Your task to perform on an android device: turn off notifications in google photos Image 0: 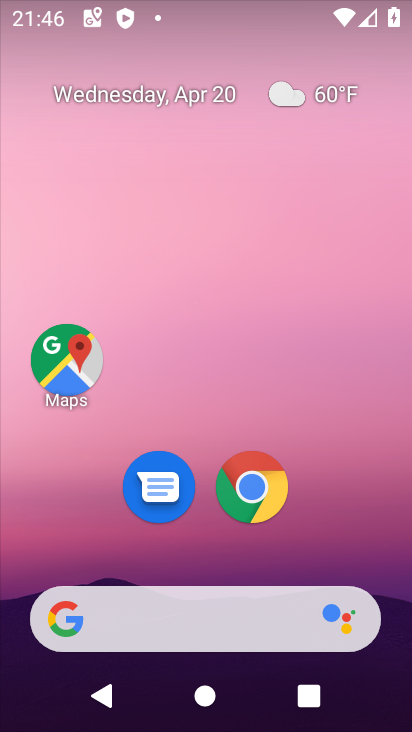
Step 0: drag from (21, 607) to (147, 271)
Your task to perform on an android device: turn off notifications in google photos Image 1: 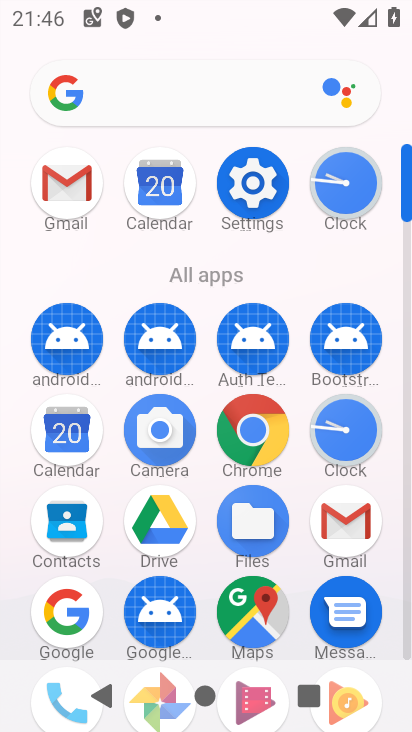
Step 1: drag from (44, 445) to (98, 293)
Your task to perform on an android device: turn off notifications in google photos Image 2: 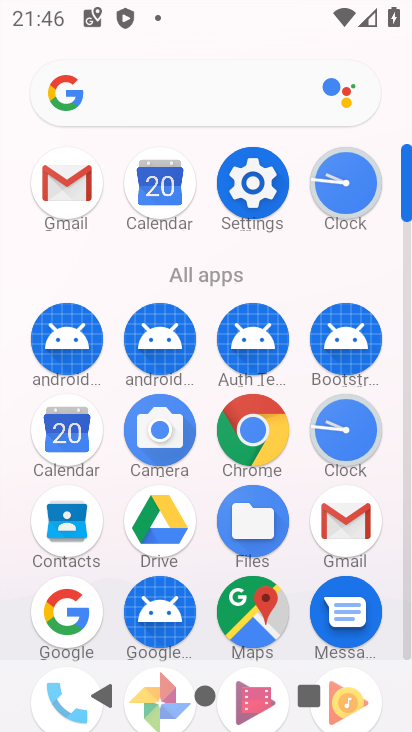
Step 2: drag from (33, 630) to (117, 270)
Your task to perform on an android device: turn off notifications in google photos Image 3: 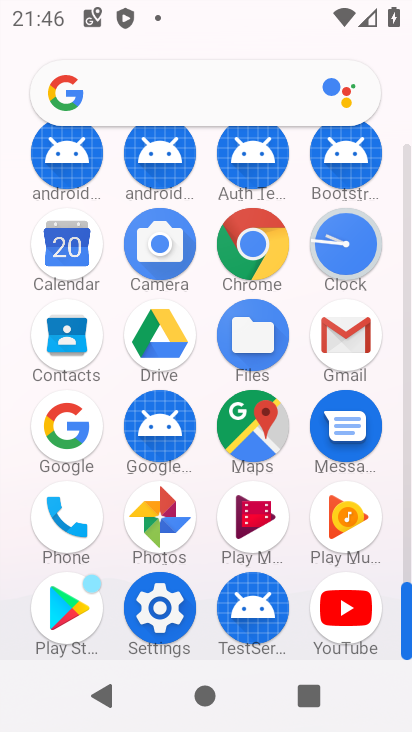
Step 3: click (166, 492)
Your task to perform on an android device: turn off notifications in google photos Image 4: 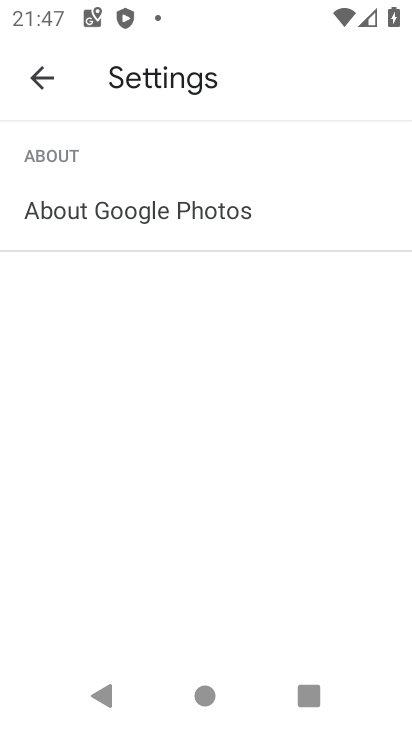
Step 4: press back button
Your task to perform on an android device: turn off notifications in google photos Image 5: 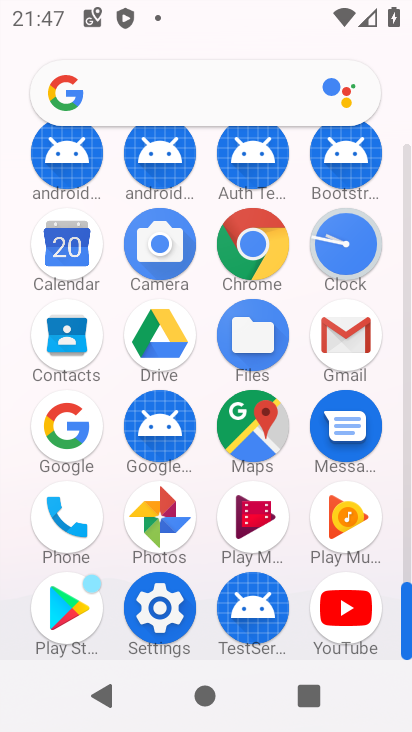
Step 5: click (151, 519)
Your task to perform on an android device: turn off notifications in google photos Image 6: 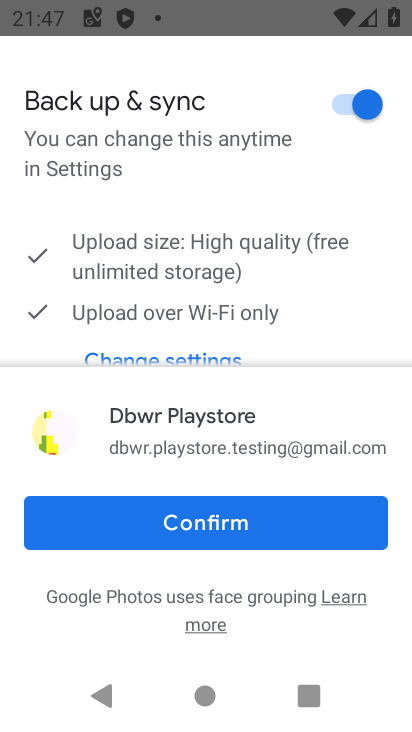
Step 6: click (120, 522)
Your task to perform on an android device: turn off notifications in google photos Image 7: 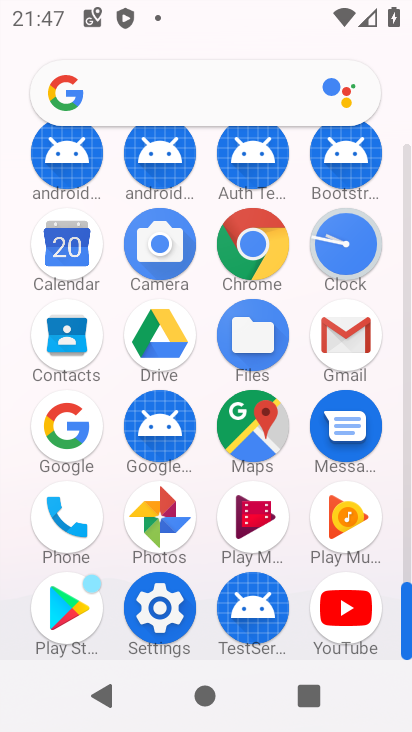
Step 7: click (144, 520)
Your task to perform on an android device: turn off notifications in google photos Image 8: 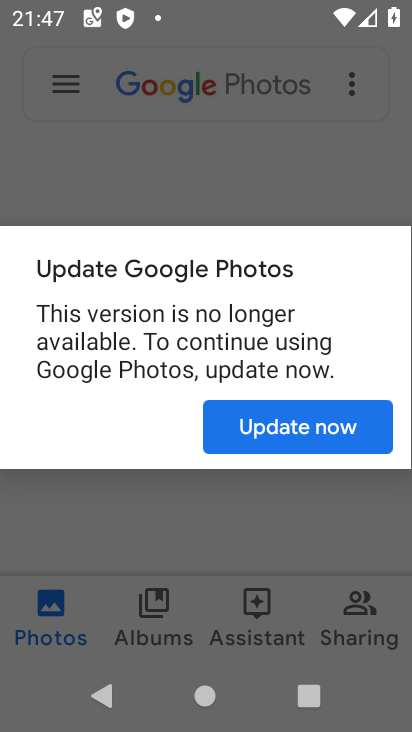
Step 8: click (201, 153)
Your task to perform on an android device: turn off notifications in google photos Image 9: 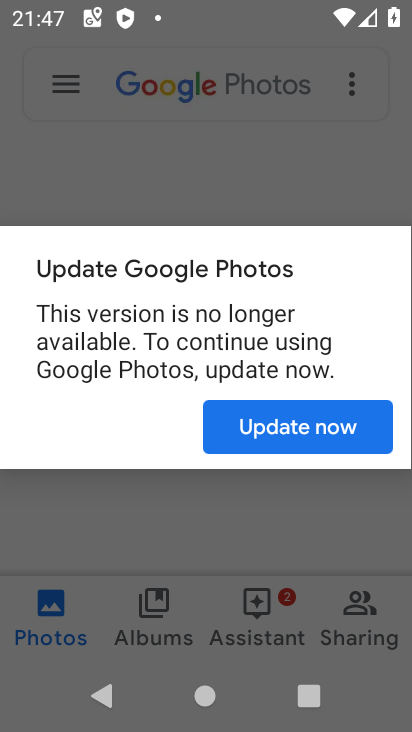
Step 9: click (300, 423)
Your task to perform on an android device: turn off notifications in google photos Image 10: 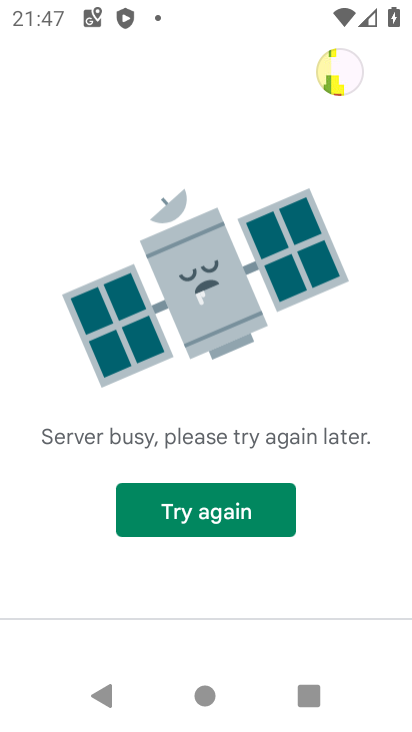
Step 10: press back button
Your task to perform on an android device: turn off notifications in google photos Image 11: 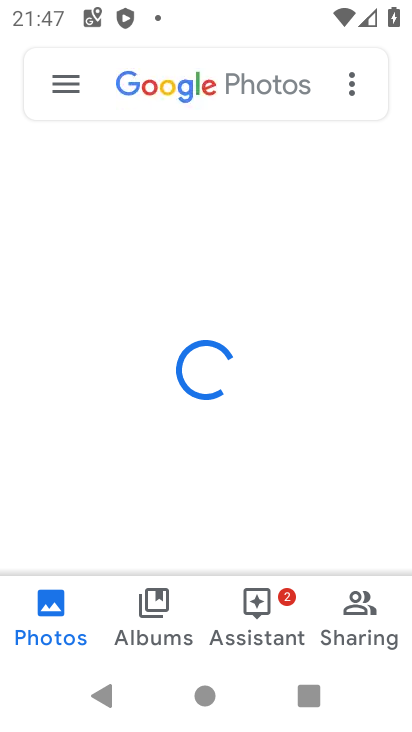
Step 11: click (107, 94)
Your task to perform on an android device: turn off notifications in google photos Image 12: 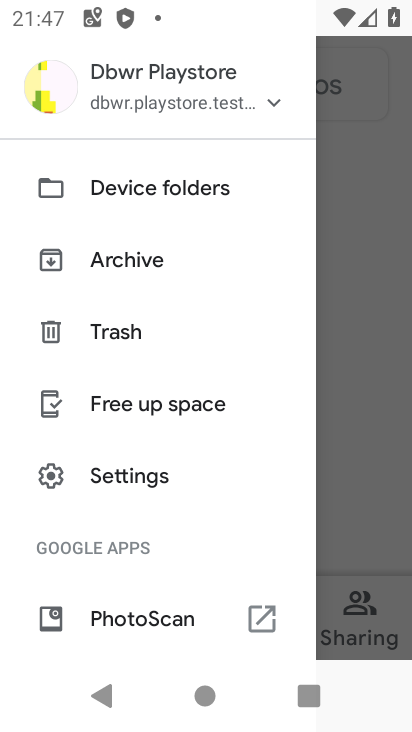
Step 12: click (98, 481)
Your task to perform on an android device: turn off notifications in google photos Image 13: 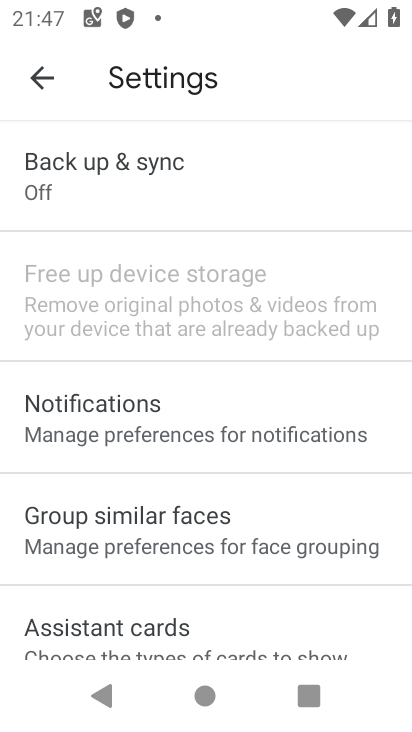
Step 13: drag from (194, 589) to (235, 347)
Your task to perform on an android device: turn off notifications in google photos Image 14: 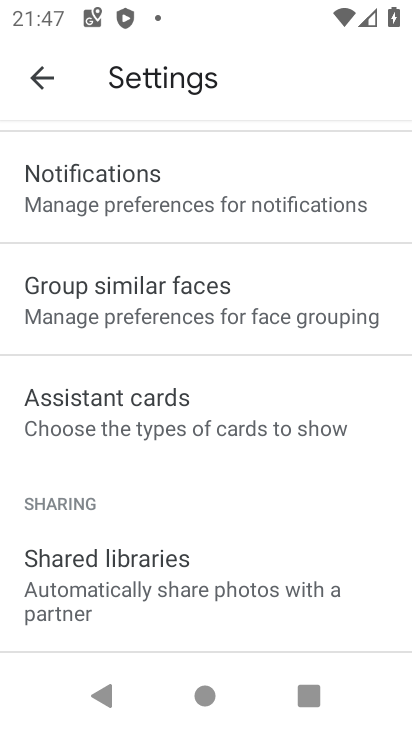
Step 14: click (163, 186)
Your task to perform on an android device: turn off notifications in google photos Image 15: 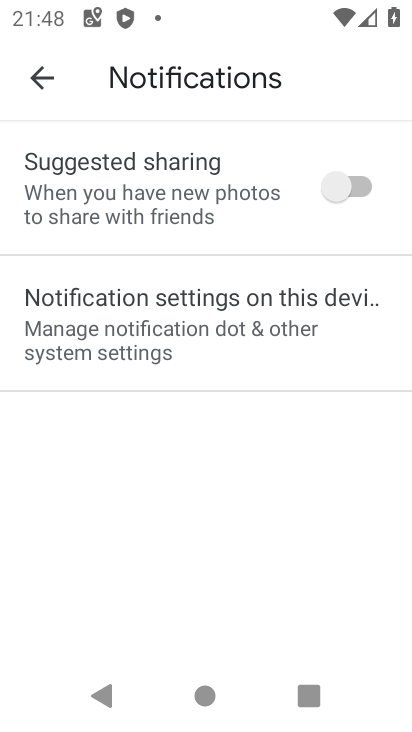
Step 15: click (43, 85)
Your task to perform on an android device: turn off notifications in google photos Image 16: 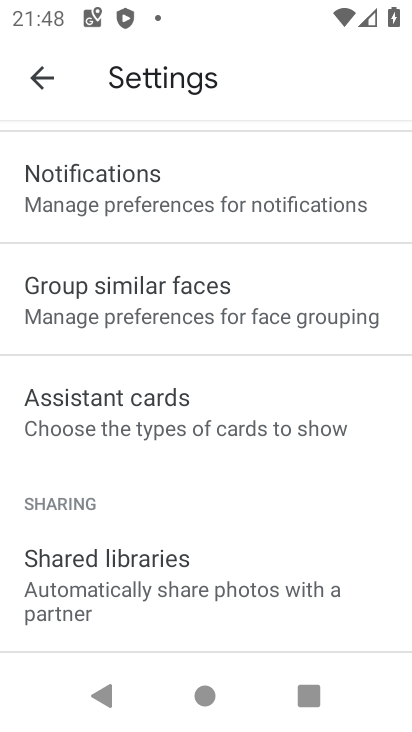
Step 16: drag from (101, 496) to (157, 195)
Your task to perform on an android device: turn off notifications in google photos Image 17: 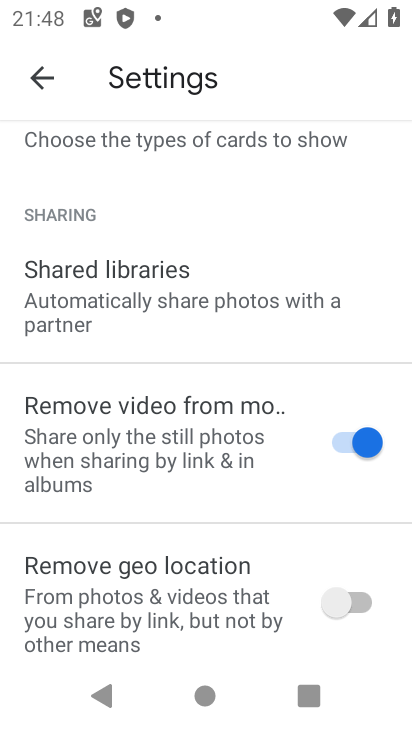
Step 17: drag from (123, 182) to (75, 644)
Your task to perform on an android device: turn off notifications in google photos Image 18: 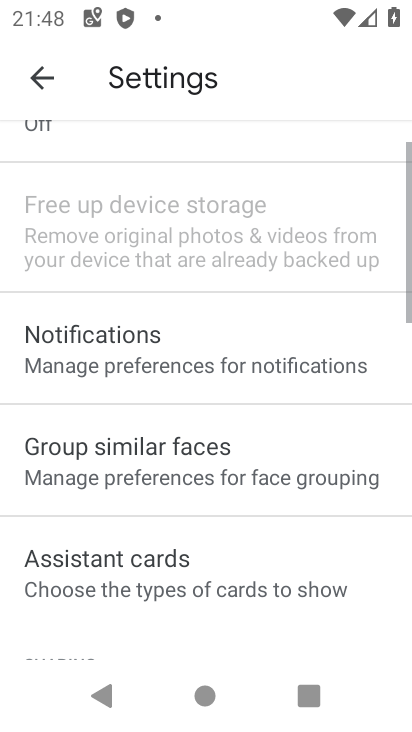
Step 18: drag from (221, 307) to (232, 659)
Your task to perform on an android device: turn off notifications in google photos Image 19: 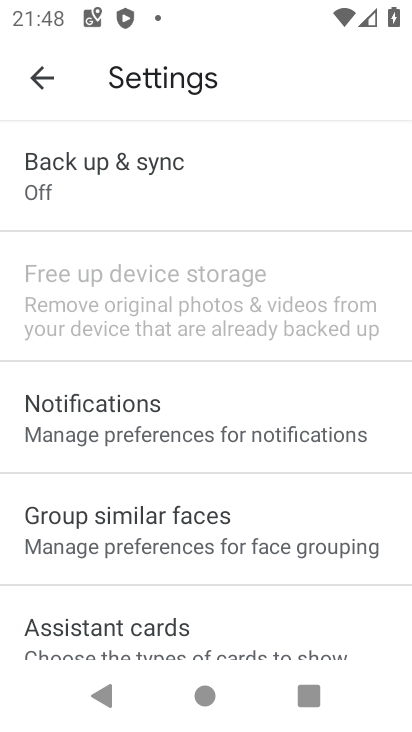
Step 19: click (31, 82)
Your task to perform on an android device: turn off notifications in google photos Image 20: 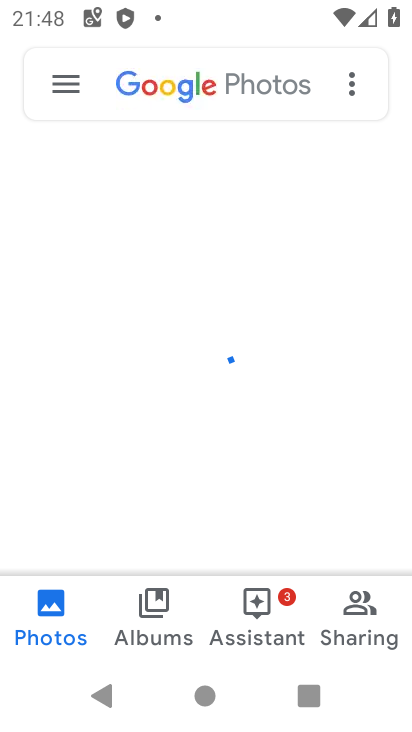
Step 20: task complete